Your task to perform on an android device: Clear all items from cart on costco.com. Search for "logitech g pro" on costco.com, select the first entry, and add it to the cart. Image 0: 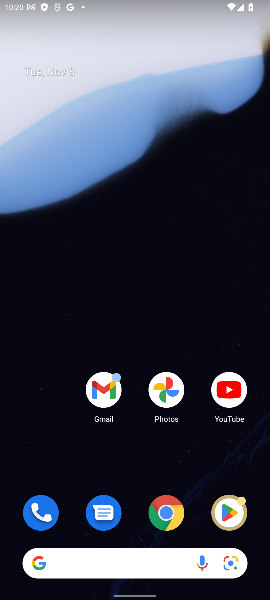
Step 0: click (165, 509)
Your task to perform on an android device: Clear all items from cart on costco.com. Search for "logitech g pro" on costco.com, select the first entry, and add it to the cart. Image 1: 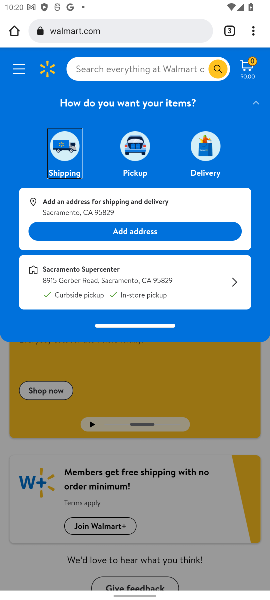
Step 1: click (229, 32)
Your task to perform on an android device: Clear all items from cart on costco.com. Search for "logitech g pro" on costco.com, select the first entry, and add it to the cart. Image 2: 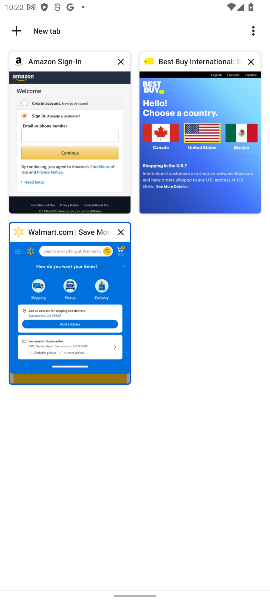
Step 2: click (16, 30)
Your task to perform on an android device: Clear all items from cart on costco.com. Search for "logitech g pro" on costco.com, select the first entry, and add it to the cart. Image 3: 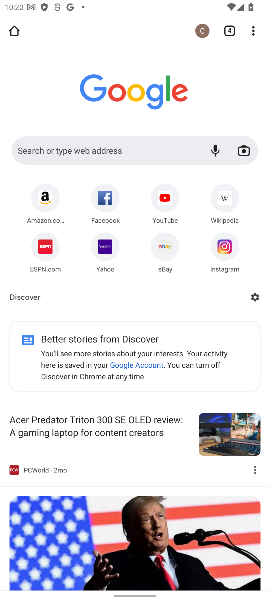
Step 3: click (135, 153)
Your task to perform on an android device: Clear all items from cart on costco.com. Search for "logitech g pro" on costco.com, select the first entry, and add it to the cart. Image 4: 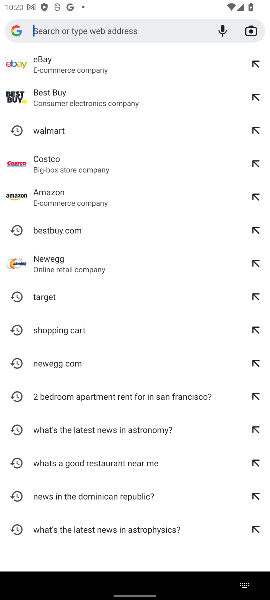
Step 4: click (74, 170)
Your task to perform on an android device: Clear all items from cart on costco.com. Search for "logitech g pro" on costco.com, select the first entry, and add it to the cart. Image 5: 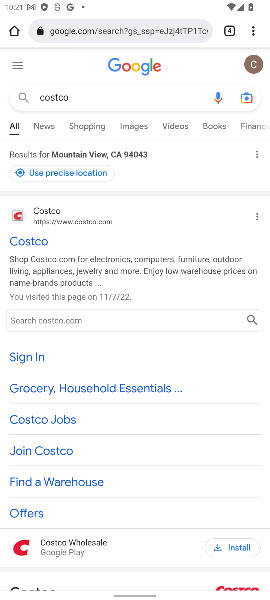
Step 5: click (66, 320)
Your task to perform on an android device: Clear all items from cart on costco.com. Search for "logitech g pro" on costco.com, select the first entry, and add it to the cart. Image 6: 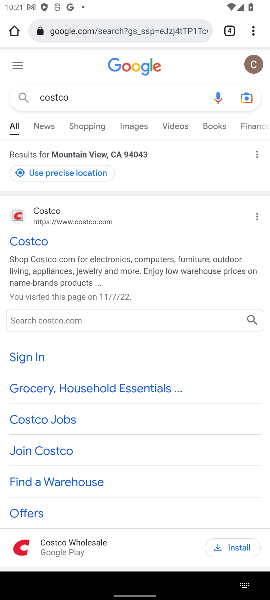
Step 6: type "logitech g pro"
Your task to perform on an android device: Clear all items from cart on costco.com. Search for "logitech g pro" on costco.com, select the first entry, and add it to the cart. Image 7: 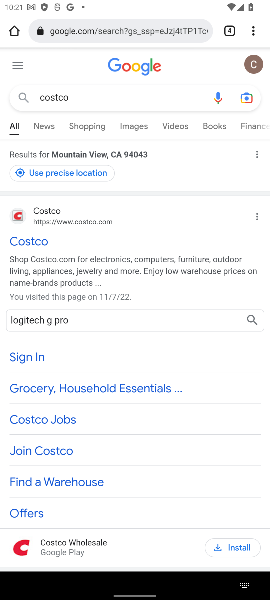
Step 7: click (251, 319)
Your task to perform on an android device: Clear all items from cart on costco.com. Search for "logitech g pro" on costco.com, select the first entry, and add it to the cart. Image 8: 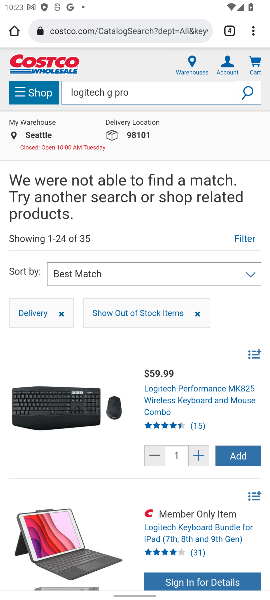
Step 8: click (248, 454)
Your task to perform on an android device: Clear all items from cart on costco.com. Search for "logitech g pro" on costco.com, select the first entry, and add it to the cart. Image 9: 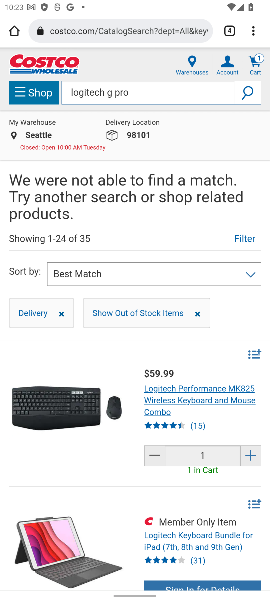
Step 9: task complete